Your task to perform on an android device: see creations saved in the google photos Image 0: 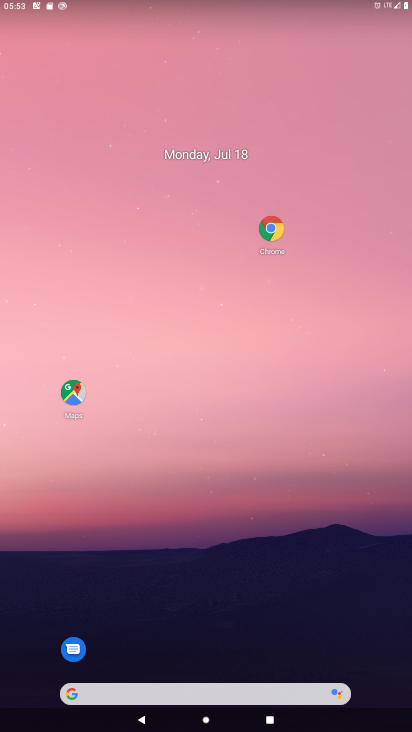
Step 0: drag from (111, 586) to (94, 237)
Your task to perform on an android device: see creations saved in the google photos Image 1: 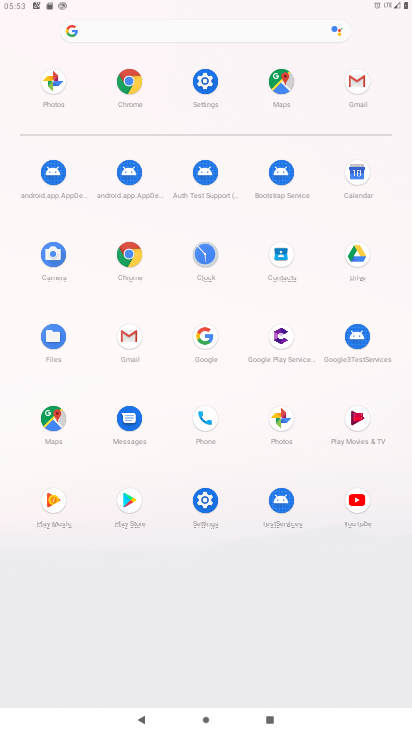
Step 1: click (55, 92)
Your task to perform on an android device: see creations saved in the google photos Image 2: 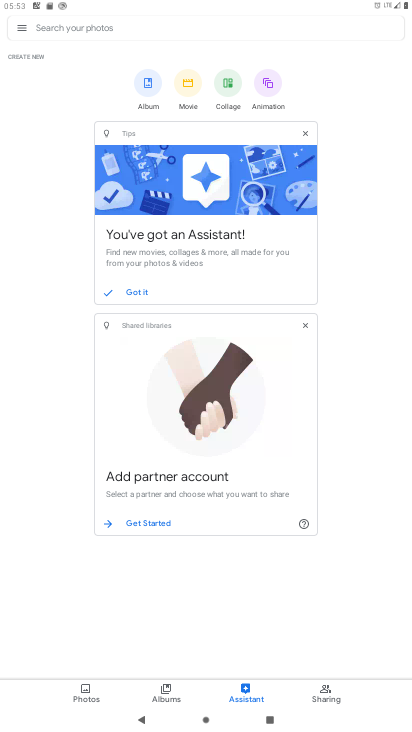
Step 2: click (78, 684)
Your task to perform on an android device: see creations saved in the google photos Image 3: 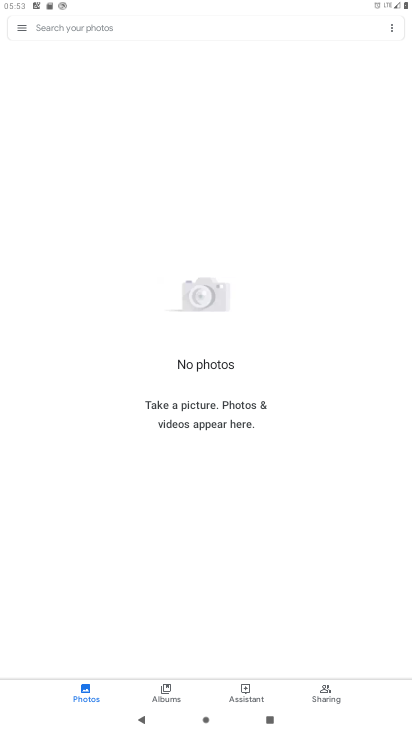
Step 3: click (180, 690)
Your task to perform on an android device: see creations saved in the google photos Image 4: 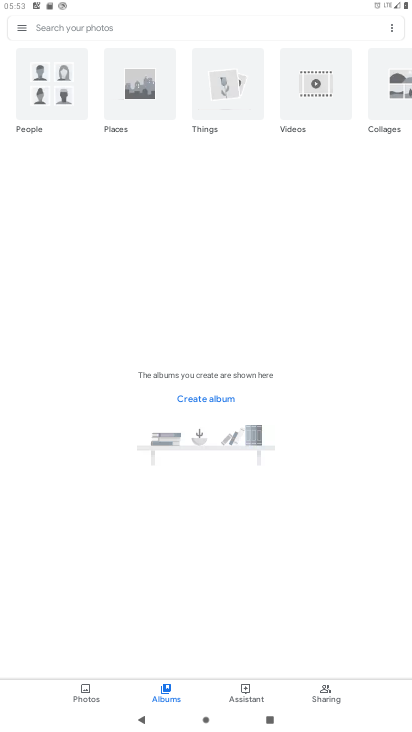
Step 4: task complete